Your task to perform on an android device: set default search engine in the chrome app Image 0: 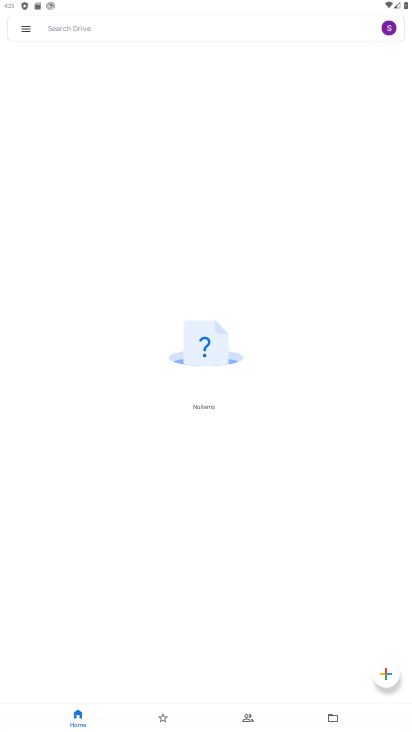
Step 0: press home button
Your task to perform on an android device: set default search engine in the chrome app Image 1: 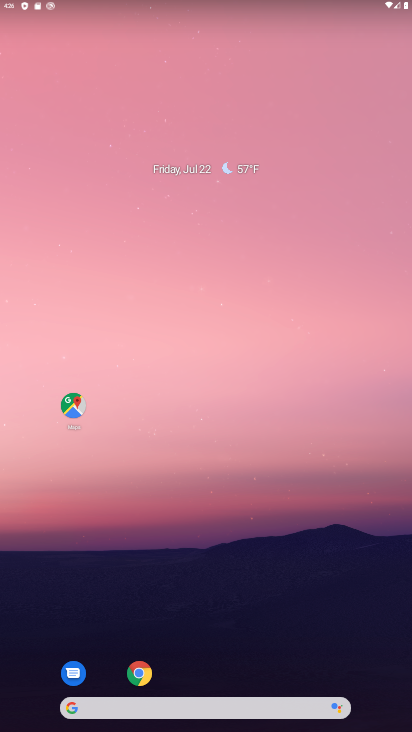
Step 1: click (143, 682)
Your task to perform on an android device: set default search engine in the chrome app Image 2: 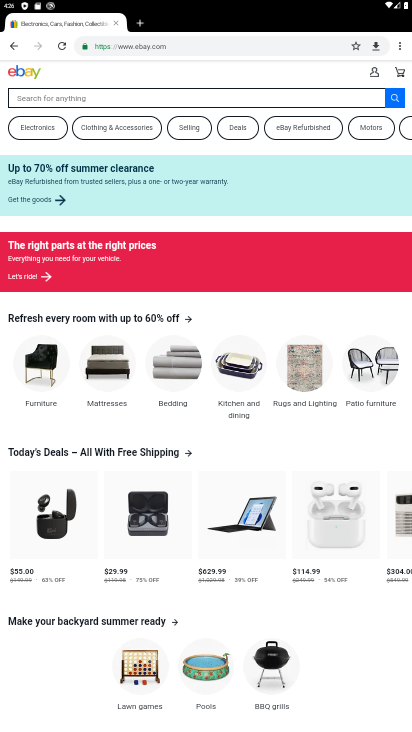
Step 2: click (404, 36)
Your task to perform on an android device: set default search engine in the chrome app Image 3: 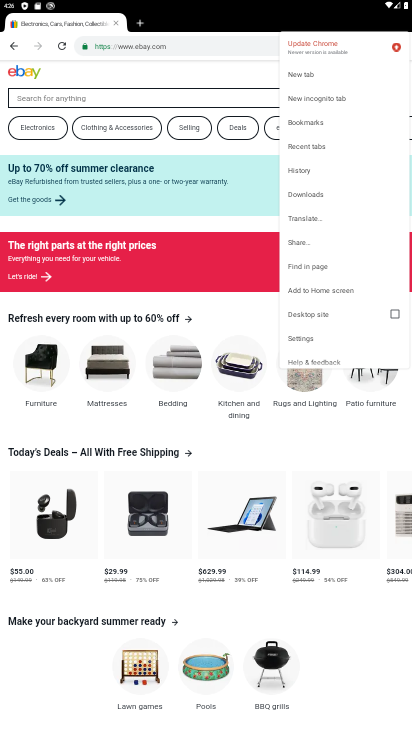
Step 3: click (310, 337)
Your task to perform on an android device: set default search engine in the chrome app Image 4: 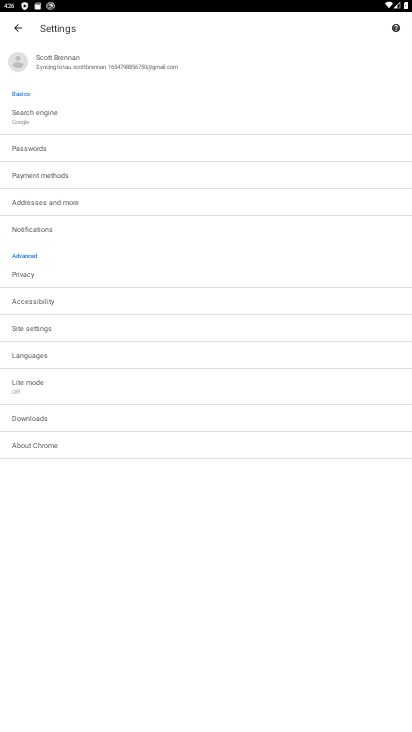
Step 4: click (50, 117)
Your task to perform on an android device: set default search engine in the chrome app Image 5: 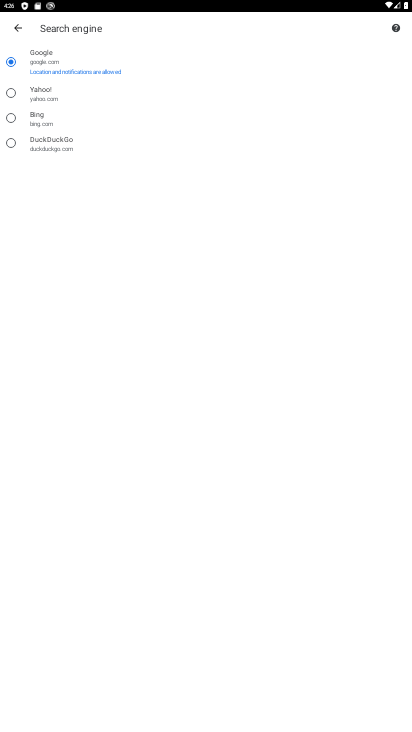
Step 5: click (58, 151)
Your task to perform on an android device: set default search engine in the chrome app Image 6: 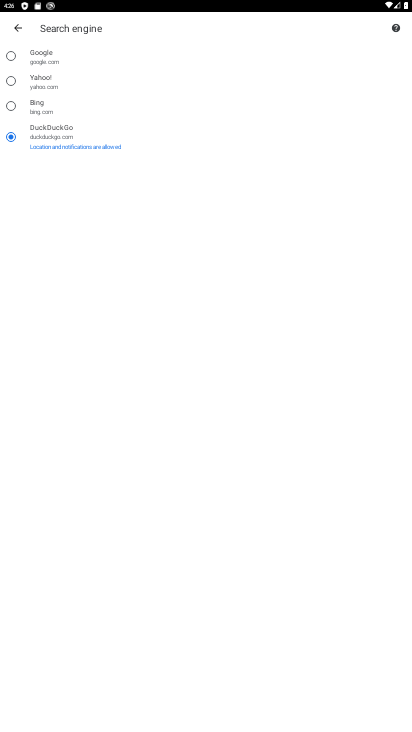
Step 6: task complete